Your task to perform on an android device: Open calendar and show me the fourth week of next month Image 0: 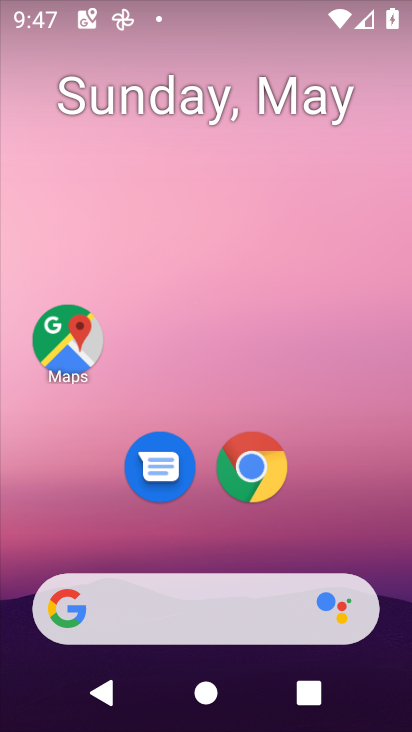
Step 0: drag from (369, 518) to (366, 121)
Your task to perform on an android device: Open calendar and show me the fourth week of next month Image 1: 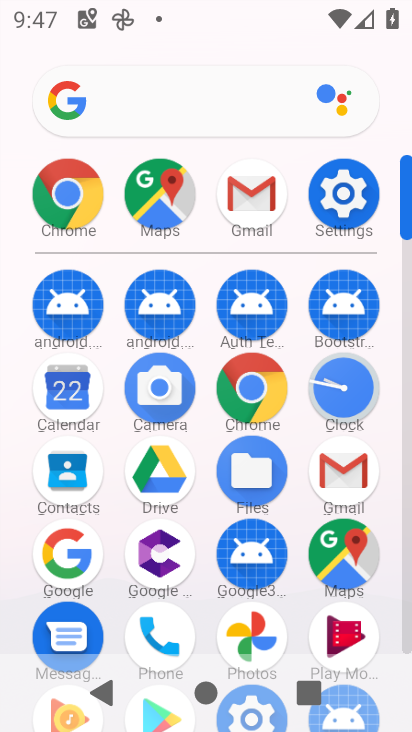
Step 1: click (73, 407)
Your task to perform on an android device: Open calendar and show me the fourth week of next month Image 2: 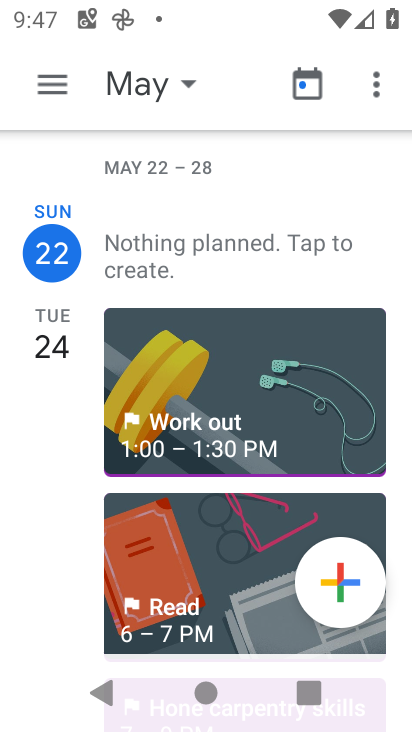
Step 2: click (145, 90)
Your task to perform on an android device: Open calendar and show me the fourth week of next month Image 3: 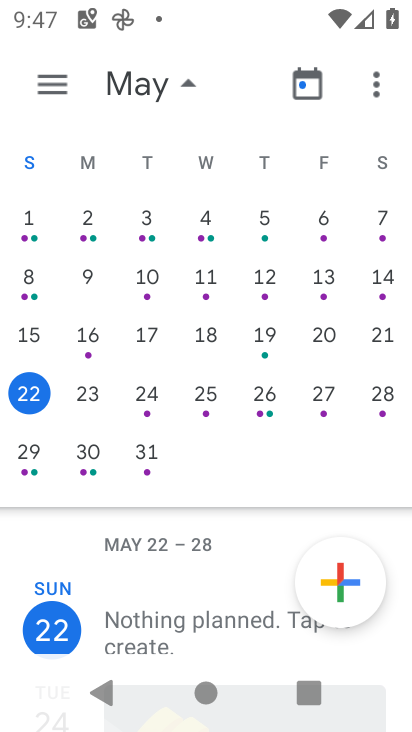
Step 3: drag from (339, 285) to (19, 300)
Your task to perform on an android device: Open calendar and show me the fourth week of next month Image 4: 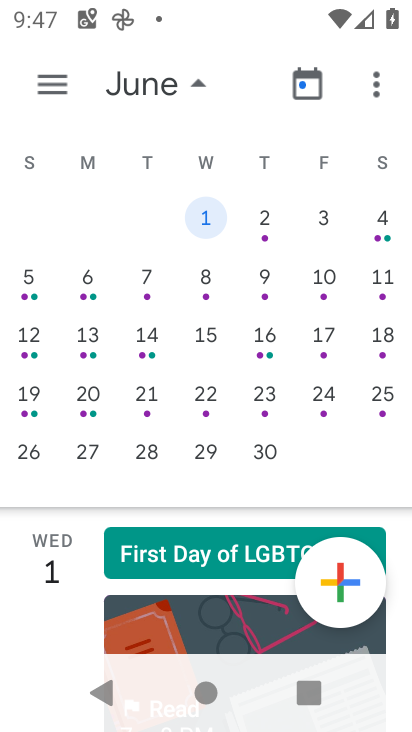
Step 4: click (31, 402)
Your task to perform on an android device: Open calendar and show me the fourth week of next month Image 5: 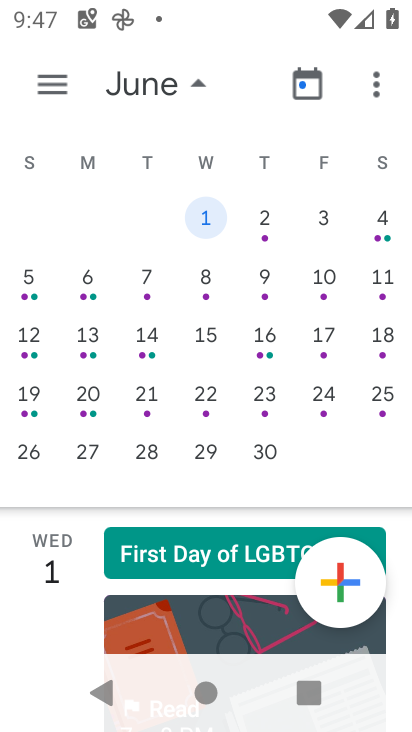
Step 5: click (26, 394)
Your task to perform on an android device: Open calendar and show me the fourth week of next month Image 6: 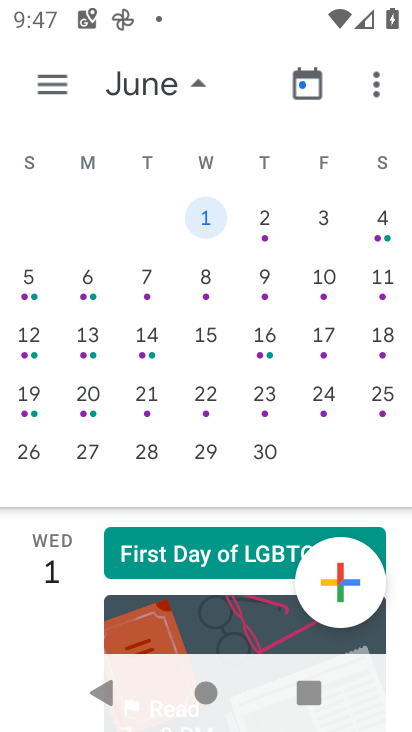
Step 6: click (34, 403)
Your task to perform on an android device: Open calendar and show me the fourth week of next month Image 7: 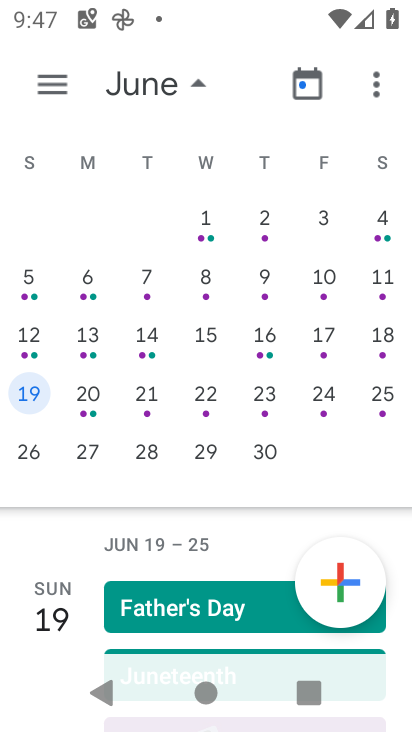
Step 7: task complete